Your task to perform on an android device: Open Google Chrome and click the shortcut for Amazon.com Image 0: 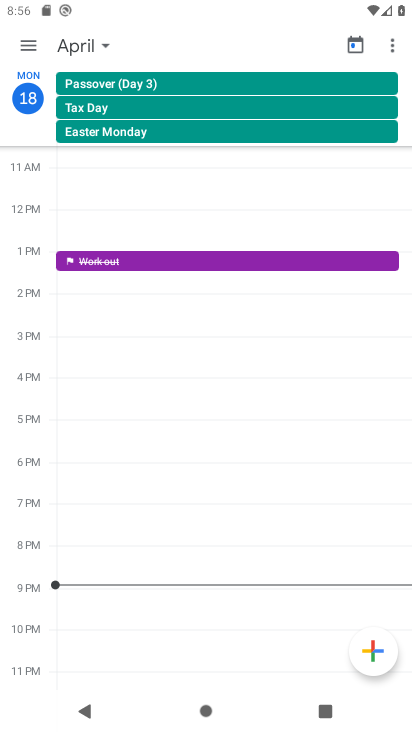
Step 0: press home button
Your task to perform on an android device: Open Google Chrome and click the shortcut for Amazon.com Image 1: 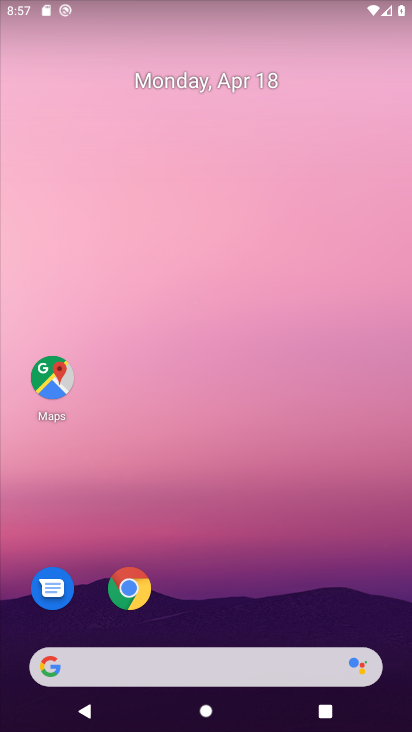
Step 1: drag from (195, 612) to (222, 89)
Your task to perform on an android device: Open Google Chrome and click the shortcut for Amazon.com Image 2: 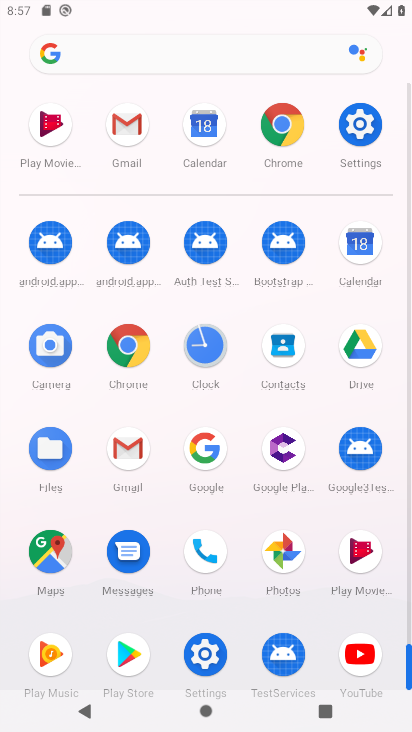
Step 2: click (110, 348)
Your task to perform on an android device: Open Google Chrome and click the shortcut for Amazon.com Image 3: 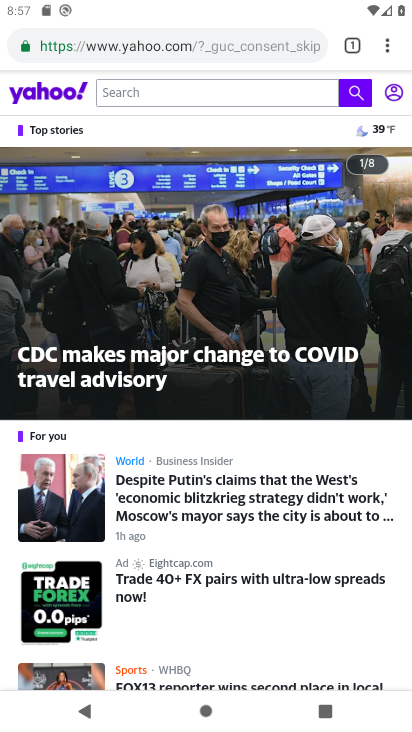
Step 3: press back button
Your task to perform on an android device: Open Google Chrome and click the shortcut for Amazon.com Image 4: 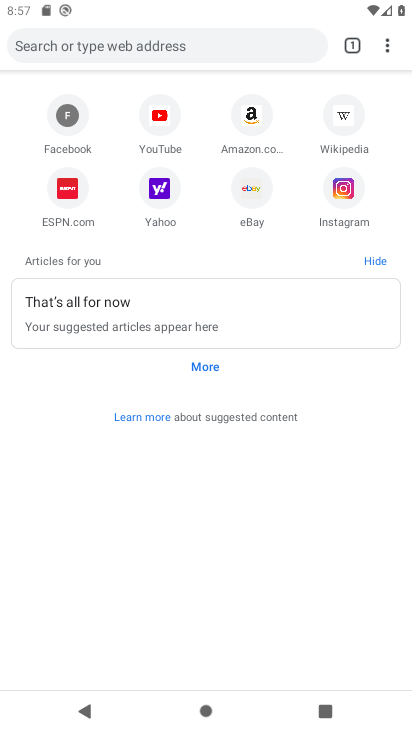
Step 4: click (246, 131)
Your task to perform on an android device: Open Google Chrome and click the shortcut for Amazon.com Image 5: 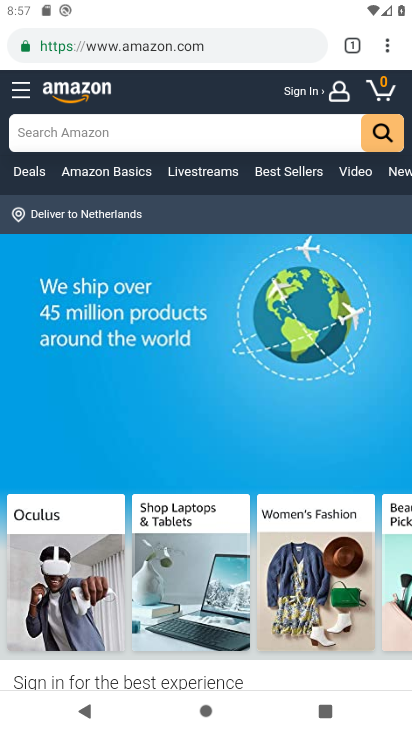
Step 5: task complete